Your task to perform on an android device: Open settings on Google Maps Image 0: 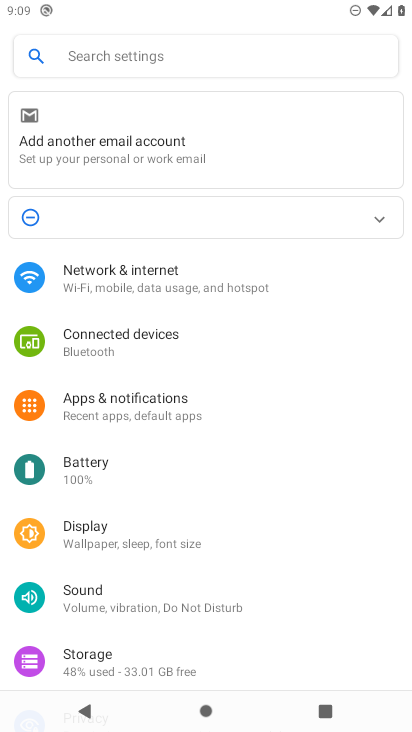
Step 0: press home button
Your task to perform on an android device: Open settings on Google Maps Image 1: 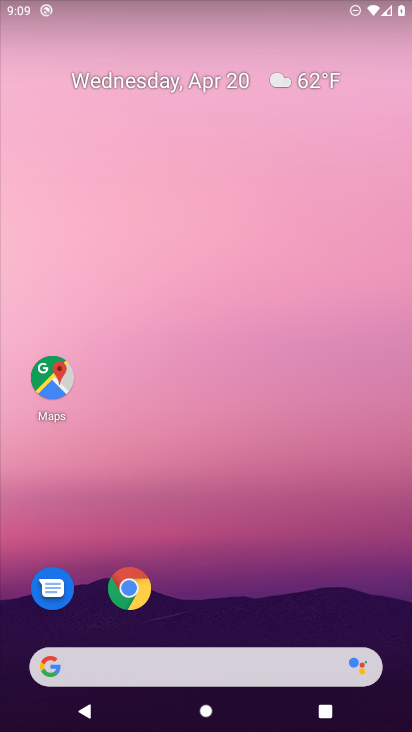
Step 1: click (53, 373)
Your task to perform on an android device: Open settings on Google Maps Image 2: 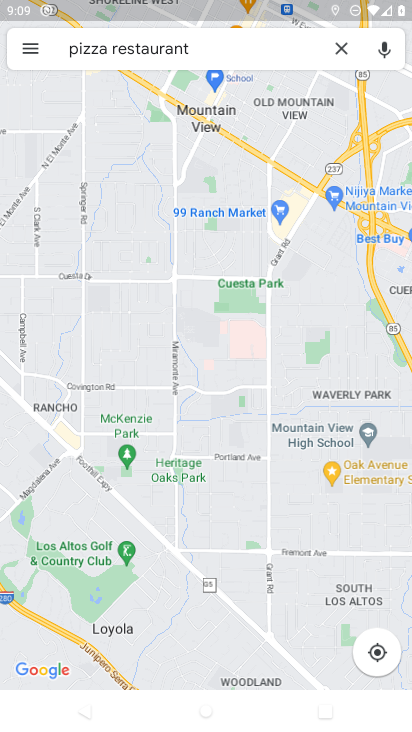
Step 2: click (30, 46)
Your task to perform on an android device: Open settings on Google Maps Image 3: 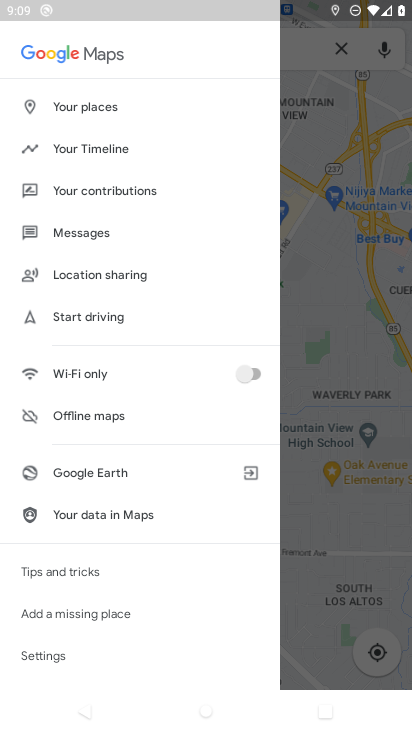
Step 3: drag from (101, 589) to (129, 66)
Your task to perform on an android device: Open settings on Google Maps Image 4: 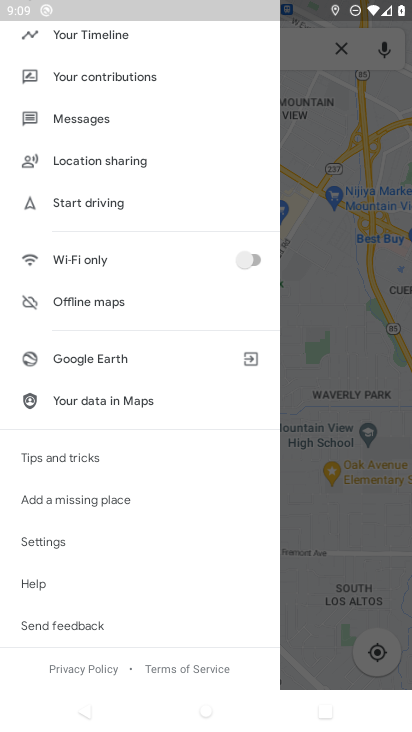
Step 4: click (73, 538)
Your task to perform on an android device: Open settings on Google Maps Image 5: 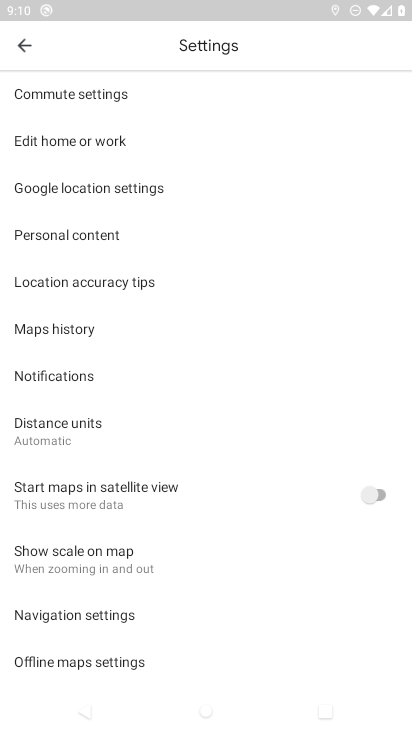
Step 5: task complete